Your task to perform on an android device: Go to wifi settings Image 0: 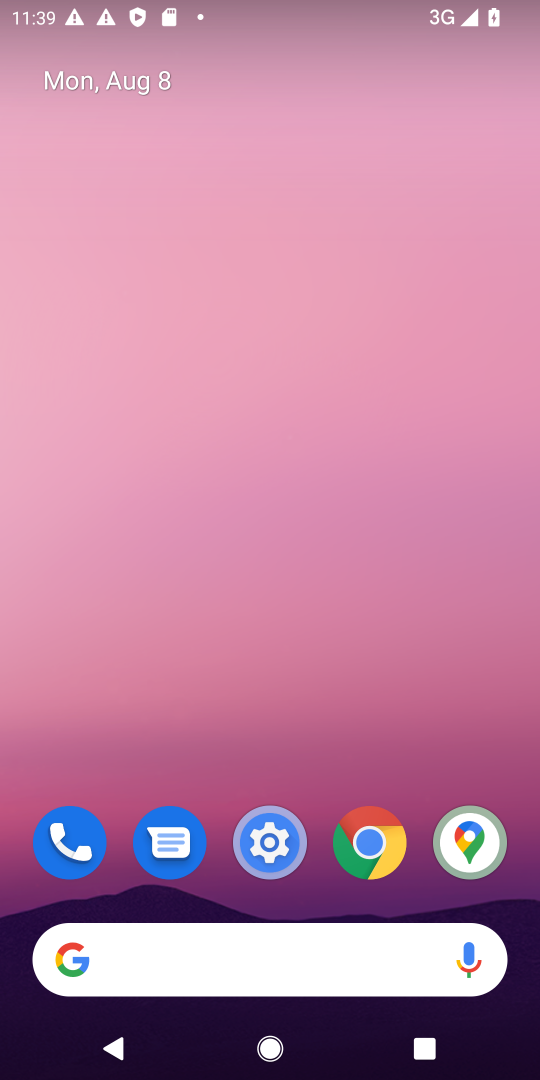
Step 0: drag from (299, 13) to (255, 395)
Your task to perform on an android device: Go to wifi settings Image 1: 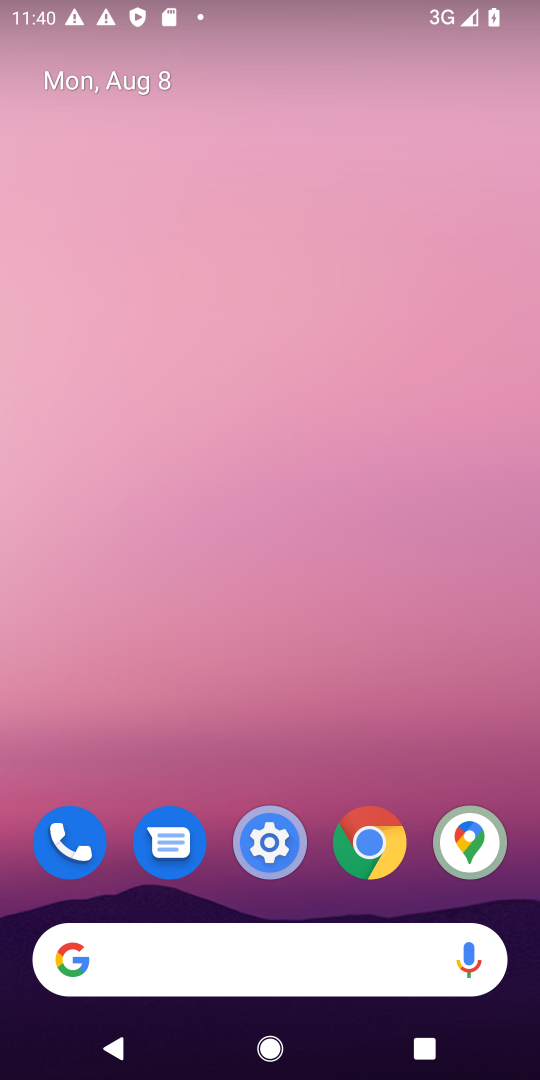
Step 1: click (265, 823)
Your task to perform on an android device: Go to wifi settings Image 2: 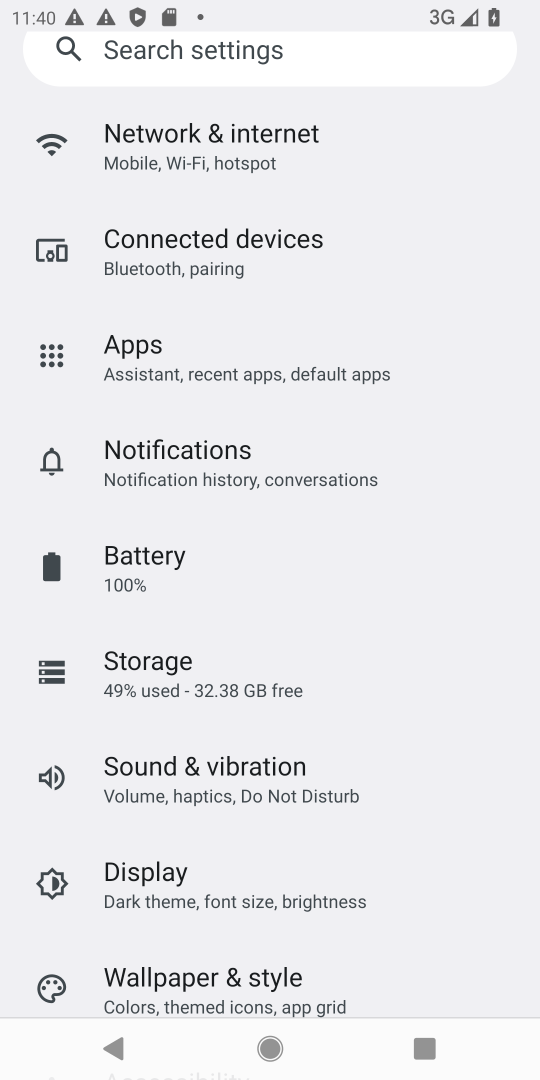
Step 2: click (177, 159)
Your task to perform on an android device: Go to wifi settings Image 3: 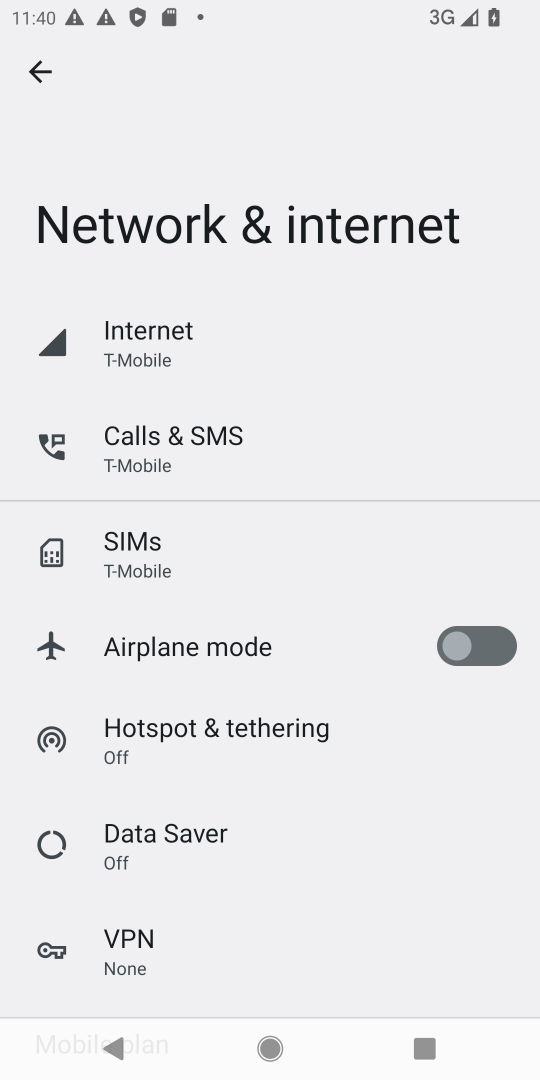
Step 3: click (192, 364)
Your task to perform on an android device: Go to wifi settings Image 4: 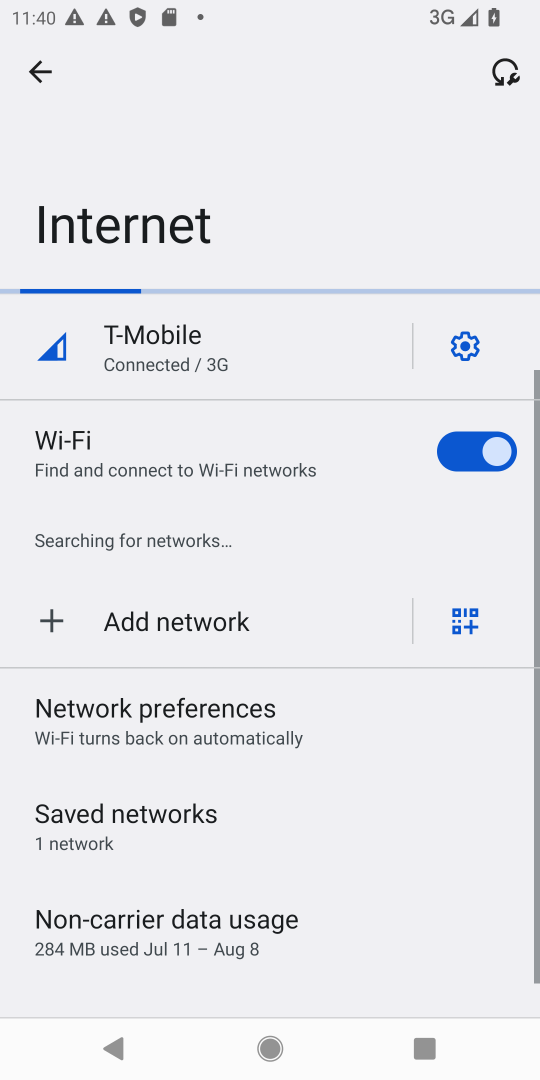
Step 4: click (165, 479)
Your task to perform on an android device: Go to wifi settings Image 5: 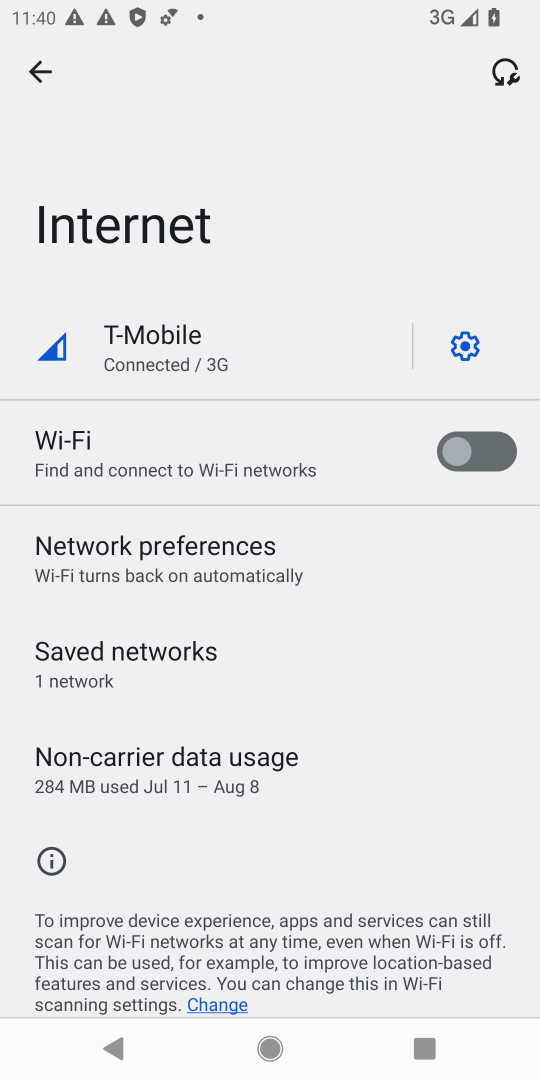
Step 5: click (469, 454)
Your task to perform on an android device: Go to wifi settings Image 6: 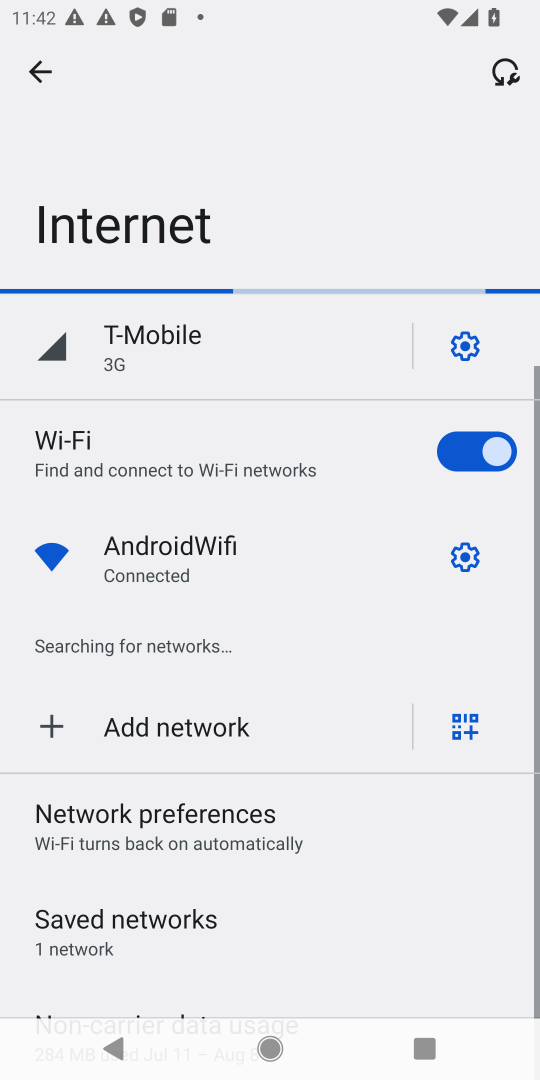
Step 6: task complete